Your task to perform on an android device: What's the weather? Image 0: 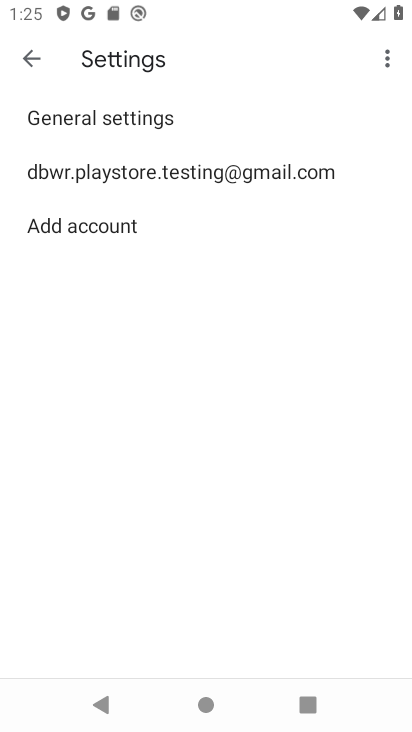
Step 0: press home button
Your task to perform on an android device: What's the weather? Image 1: 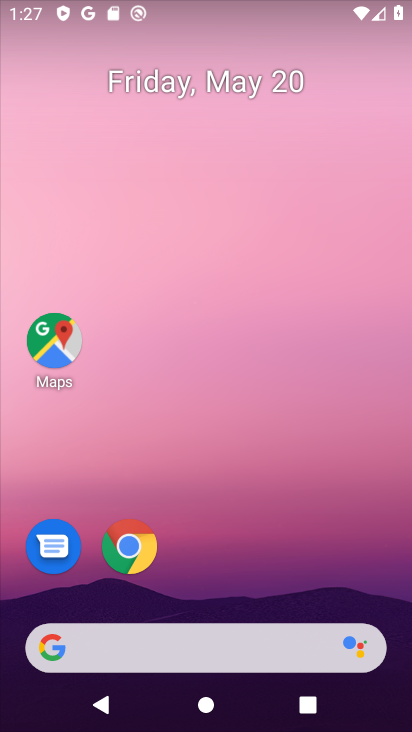
Step 1: drag from (176, 617) to (238, 184)
Your task to perform on an android device: What's the weather? Image 2: 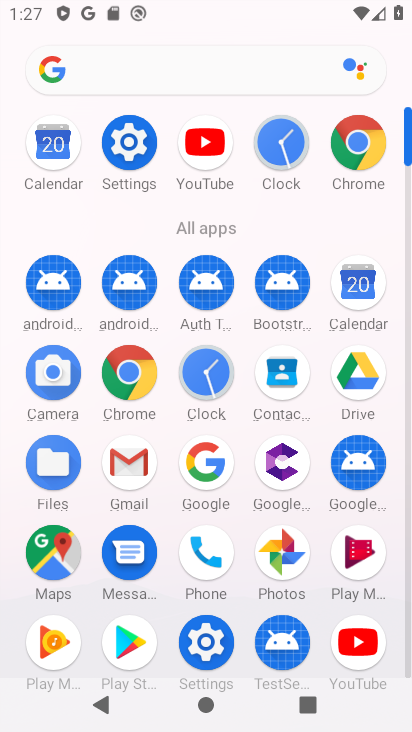
Step 2: click (125, 371)
Your task to perform on an android device: What's the weather? Image 3: 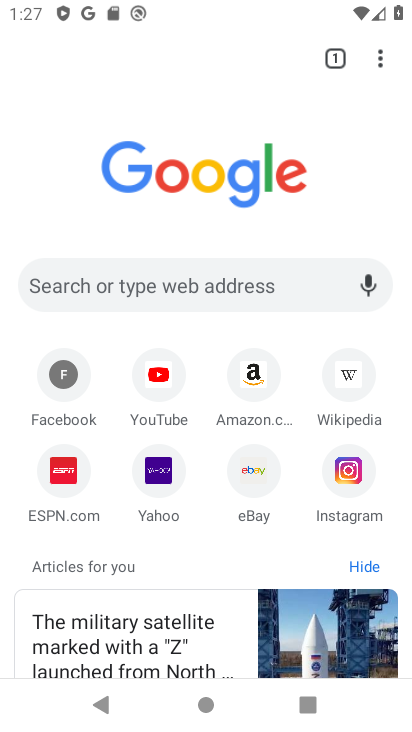
Step 3: drag from (37, 207) to (398, 244)
Your task to perform on an android device: What's the weather? Image 4: 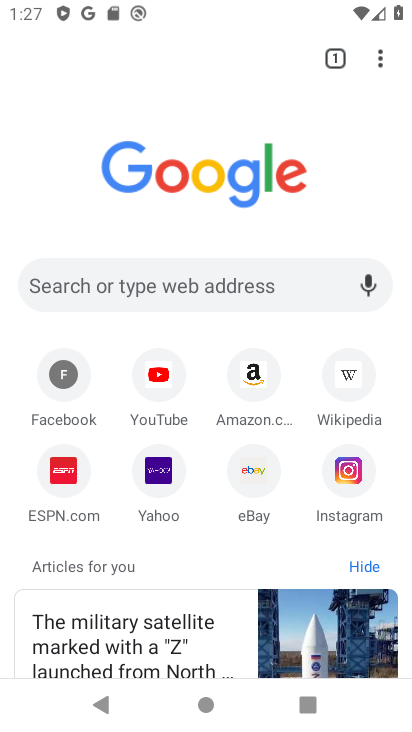
Step 4: press home button
Your task to perform on an android device: What's the weather? Image 5: 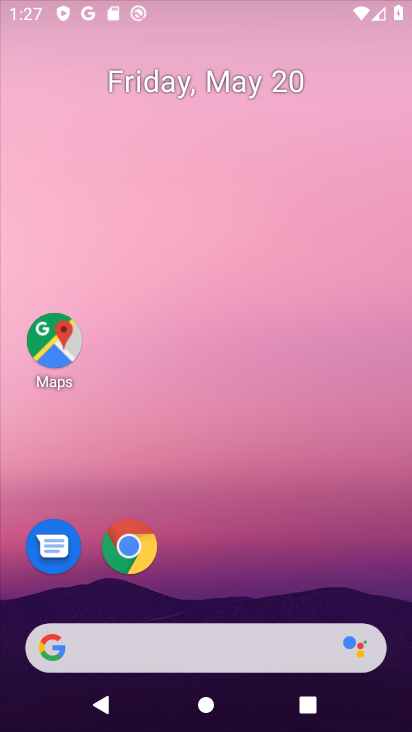
Step 5: drag from (36, 223) to (396, 282)
Your task to perform on an android device: What's the weather? Image 6: 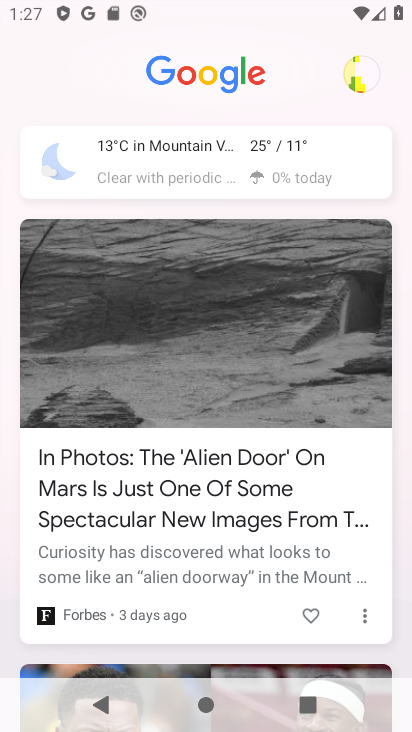
Step 6: click (249, 152)
Your task to perform on an android device: What's the weather? Image 7: 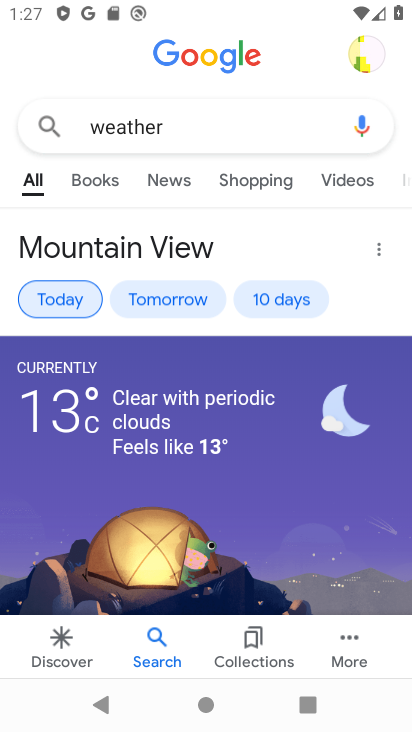
Step 7: task complete